Your task to perform on an android device: empty trash in the gmail app Image 0: 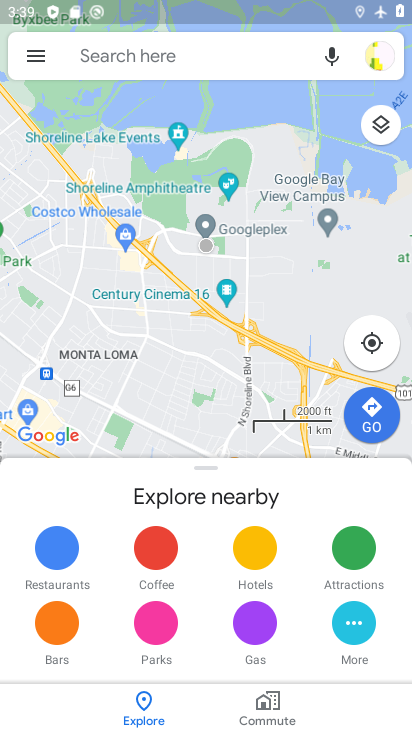
Step 0: press back button
Your task to perform on an android device: empty trash in the gmail app Image 1: 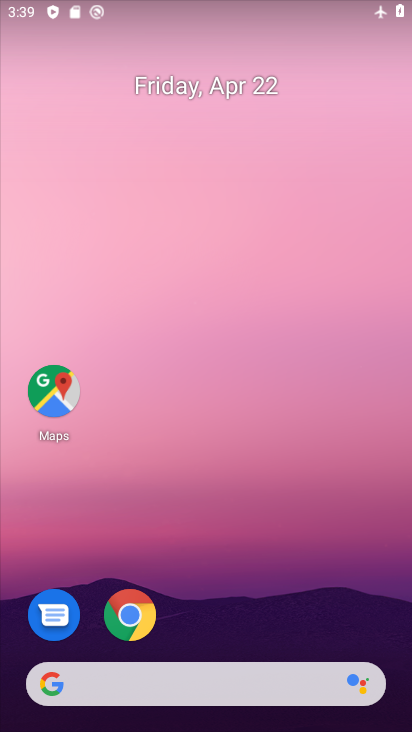
Step 1: drag from (221, 652) to (287, 192)
Your task to perform on an android device: empty trash in the gmail app Image 2: 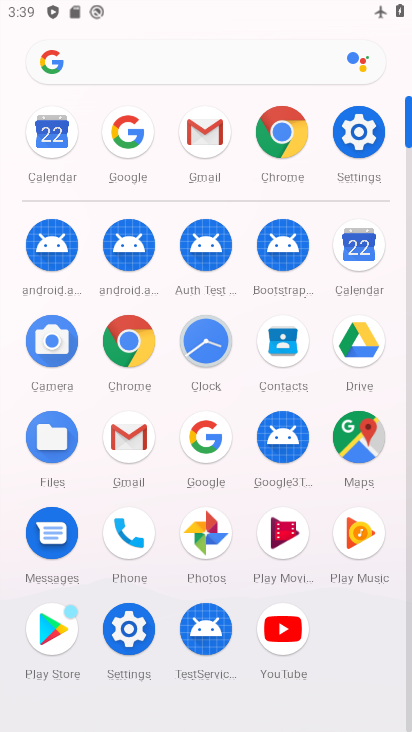
Step 2: click (131, 447)
Your task to perform on an android device: empty trash in the gmail app Image 3: 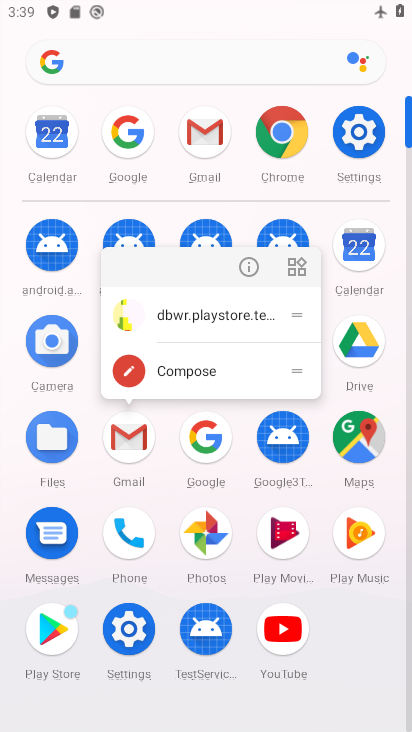
Step 3: click (118, 436)
Your task to perform on an android device: empty trash in the gmail app Image 4: 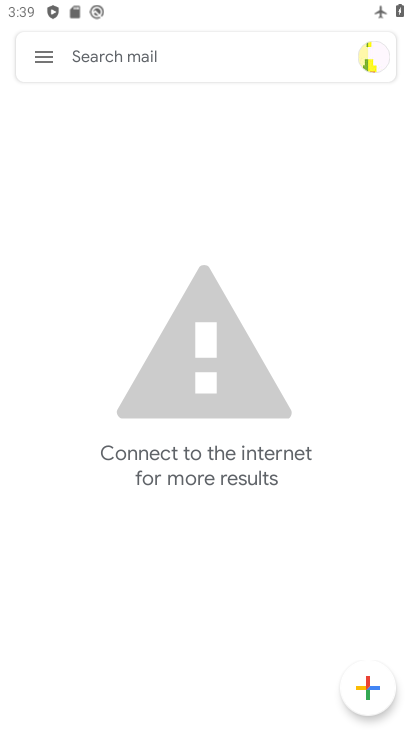
Step 4: click (50, 61)
Your task to perform on an android device: empty trash in the gmail app Image 5: 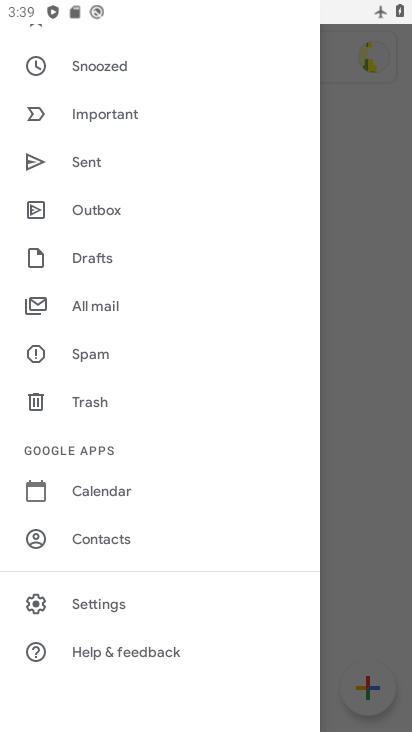
Step 5: click (90, 393)
Your task to perform on an android device: empty trash in the gmail app Image 6: 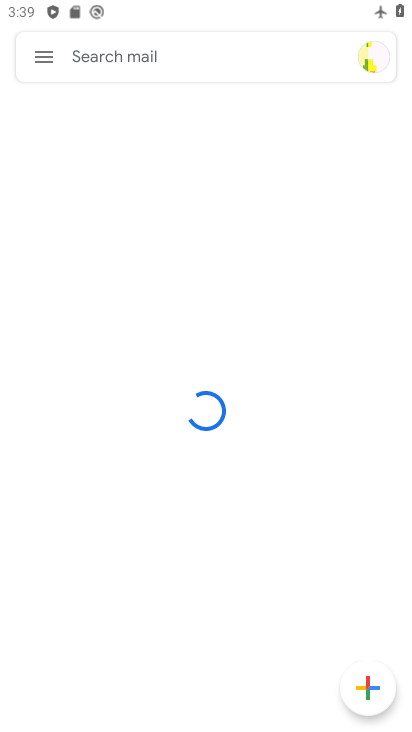
Step 6: task complete